Your task to perform on an android device: snooze an email in the gmail app Image 0: 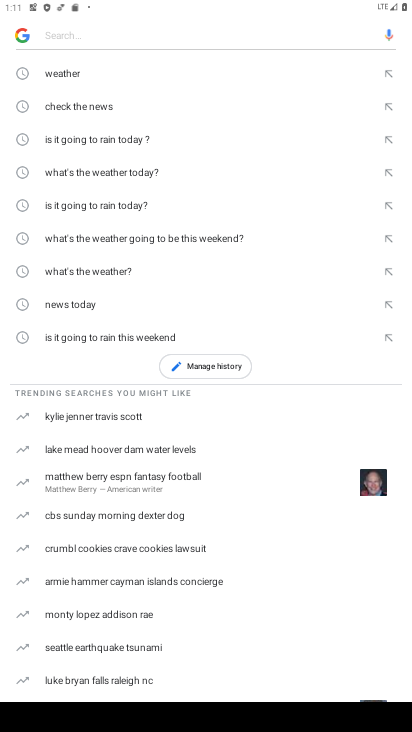
Step 0: press home button
Your task to perform on an android device: snooze an email in the gmail app Image 1: 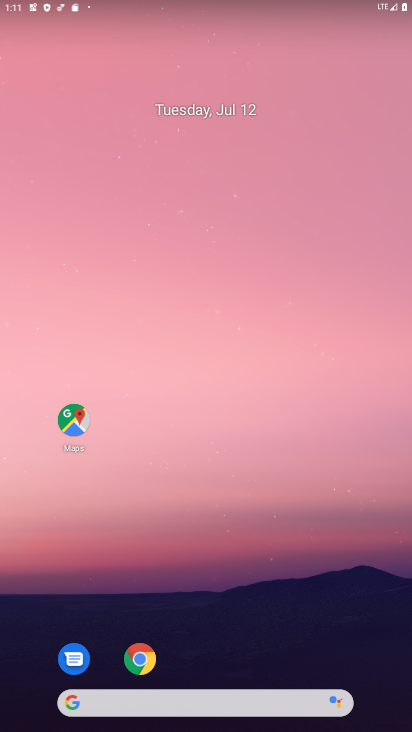
Step 1: drag from (239, 673) to (223, 26)
Your task to perform on an android device: snooze an email in the gmail app Image 2: 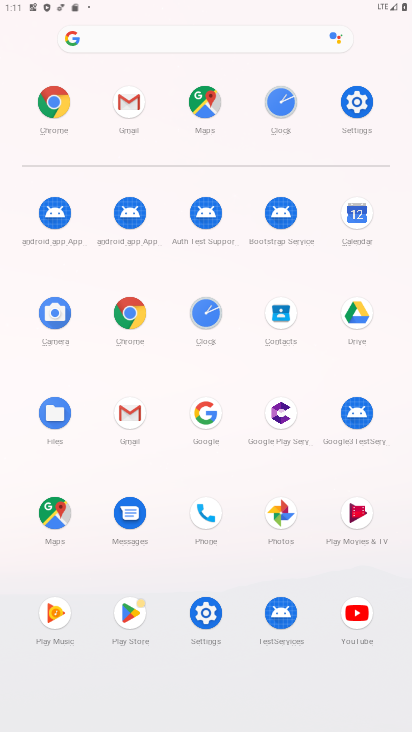
Step 2: click (128, 419)
Your task to perform on an android device: snooze an email in the gmail app Image 3: 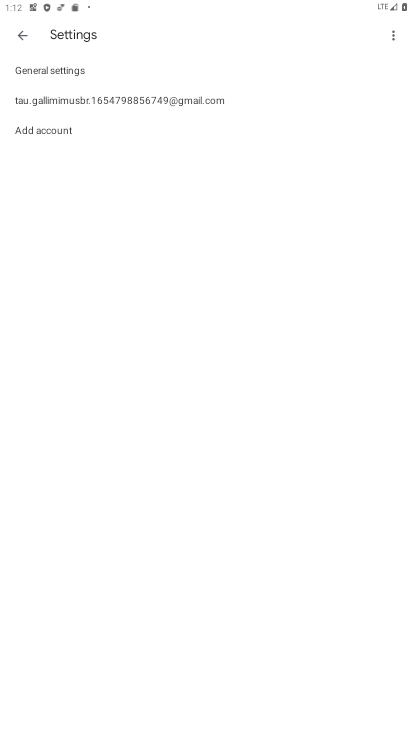
Step 3: click (26, 32)
Your task to perform on an android device: snooze an email in the gmail app Image 4: 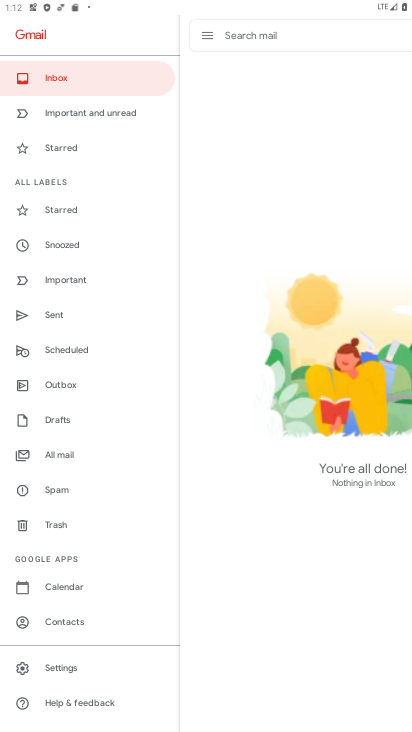
Step 4: click (81, 86)
Your task to perform on an android device: snooze an email in the gmail app Image 5: 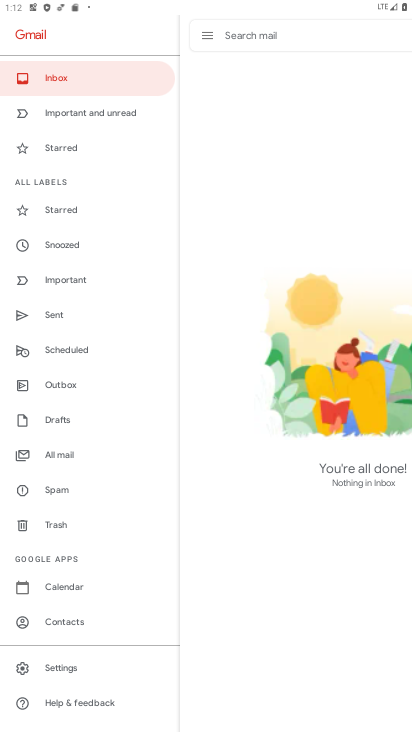
Step 5: task complete